Your task to perform on an android device: Search for Mexican restaurants on Maps Image 0: 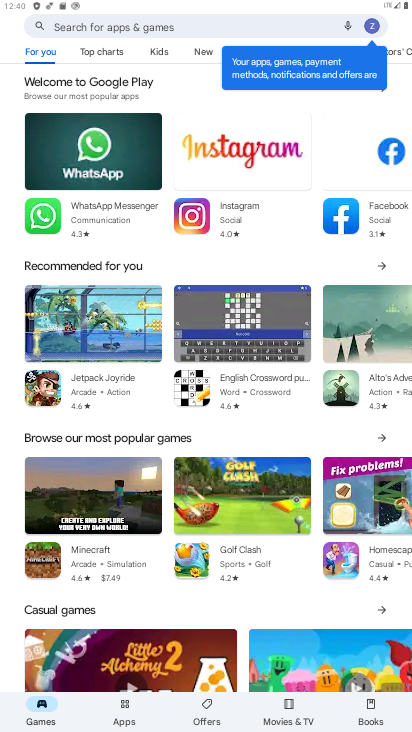
Step 0: press home button
Your task to perform on an android device: Search for Mexican restaurants on Maps Image 1: 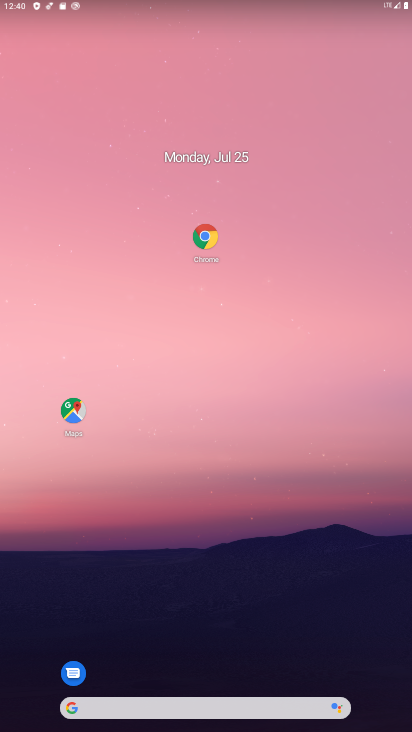
Step 1: click (272, 69)
Your task to perform on an android device: Search for Mexican restaurants on Maps Image 2: 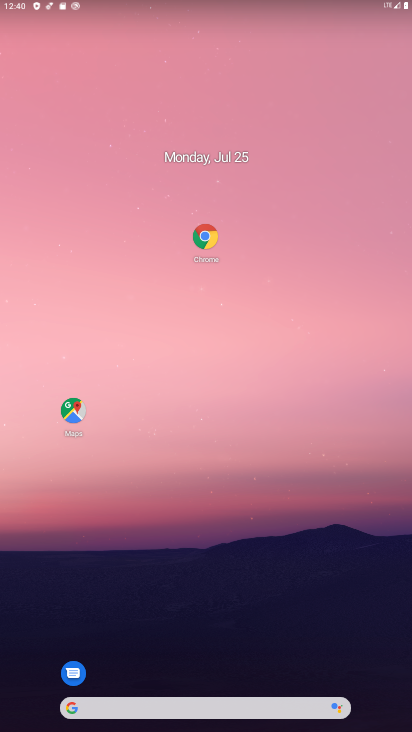
Step 2: drag from (242, 669) to (283, 84)
Your task to perform on an android device: Search for Mexican restaurants on Maps Image 3: 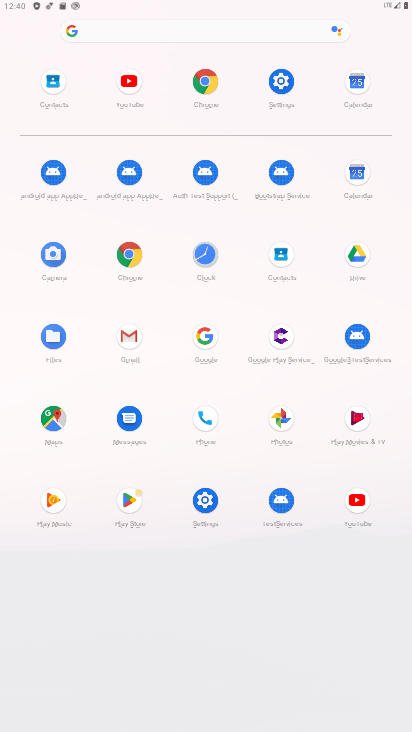
Step 3: click (51, 424)
Your task to perform on an android device: Search for Mexican restaurants on Maps Image 4: 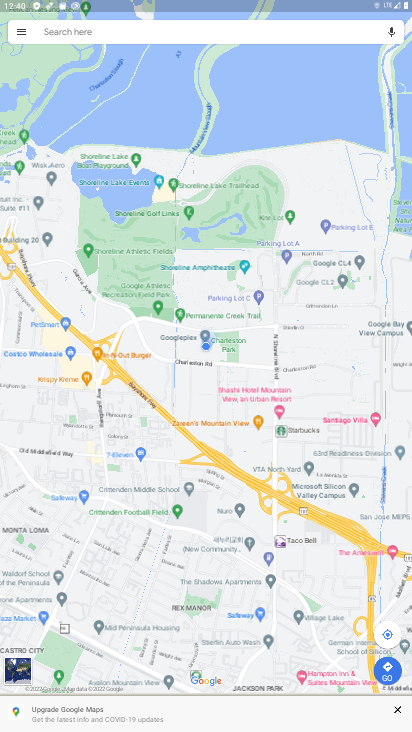
Step 4: click (322, 28)
Your task to perform on an android device: Search for Mexican restaurants on Maps Image 5: 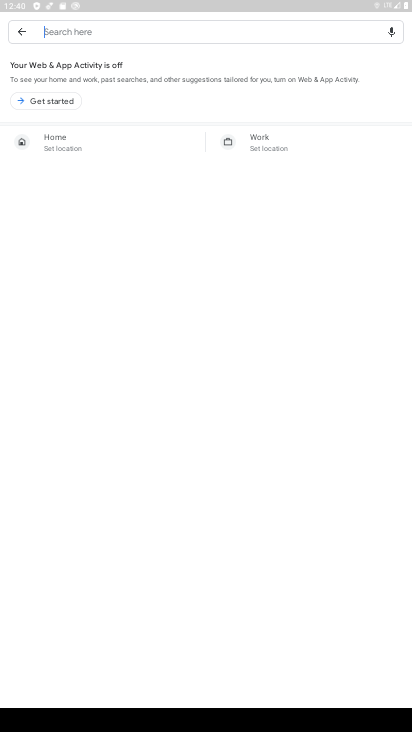
Step 5: type "mexican rest"
Your task to perform on an android device: Search for Mexican restaurants on Maps Image 6: 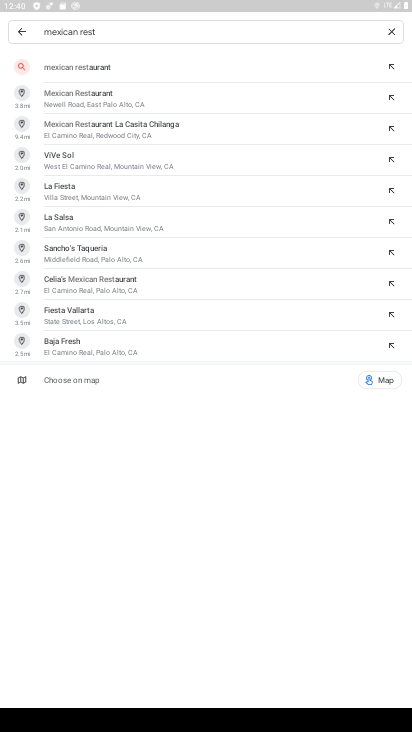
Step 6: click (118, 71)
Your task to perform on an android device: Search for Mexican restaurants on Maps Image 7: 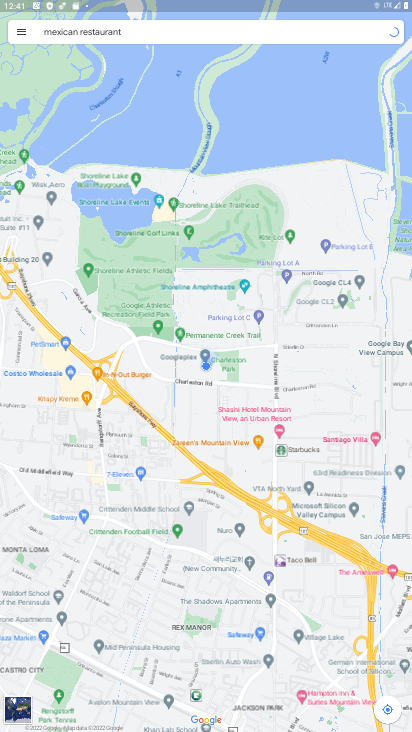
Step 7: task complete